Your task to perform on an android device: toggle wifi Image 0: 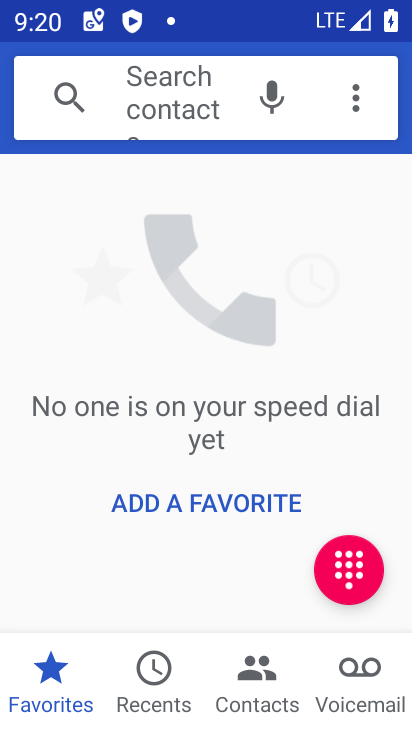
Step 0: press home button
Your task to perform on an android device: toggle wifi Image 1: 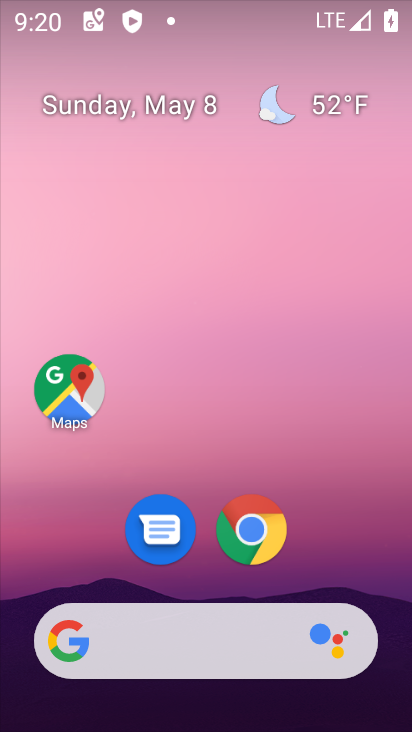
Step 1: drag from (330, 564) to (340, 88)
Your task to perform on an android device: toggle wifi Image 2: 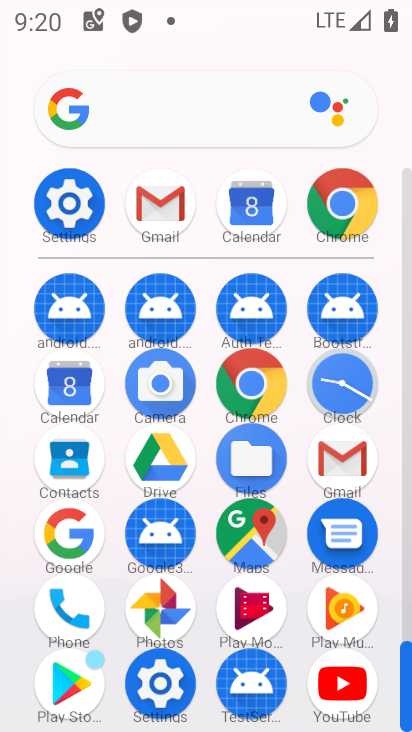
Step 2: click (74, 202)
Your task to perform on an android device: toggle wifi Image 3: 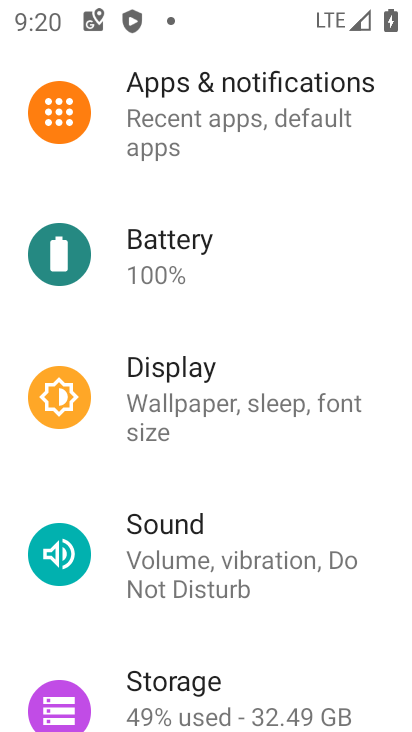
Step 3: drag from (281, 187) to (251, 548)
Your task to perform on an android device: toggle wifi Image 4: 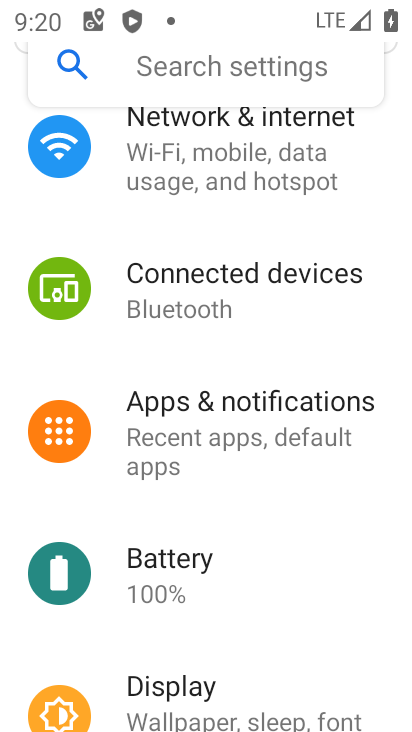
Step 4: drag from (247, 205) to (235, 565)
Your task to perform on an android device: toggle wifi Image 5: 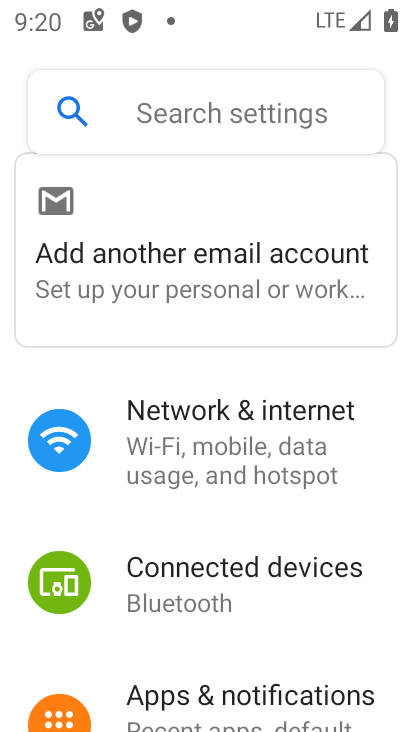
Step 5: click (205, 456)
Your task to perform on an android device: toggle wifi Image 6: 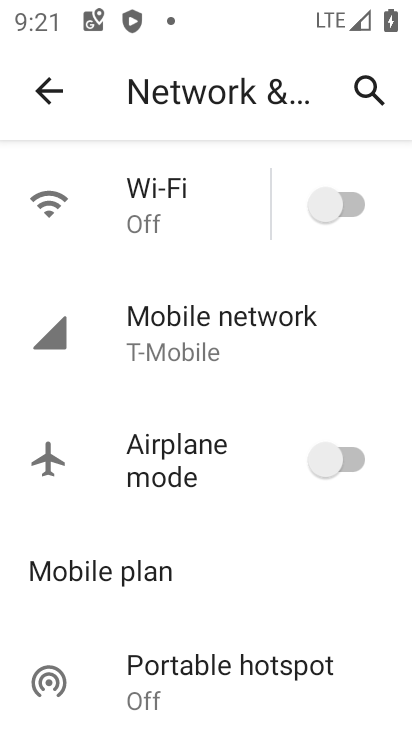
Step 6: click (362, 208)
Your task to perform on an android device: toggle wifi Image 7: 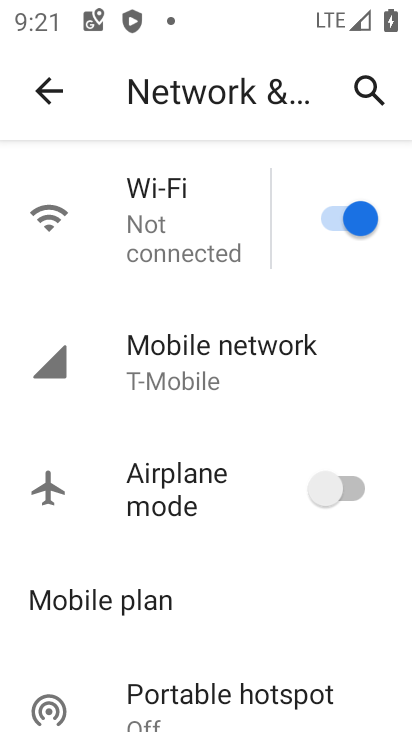
Step 7: task complete